Your task to perform on an android device: Show me productivity apps on the Play Store Image 0: 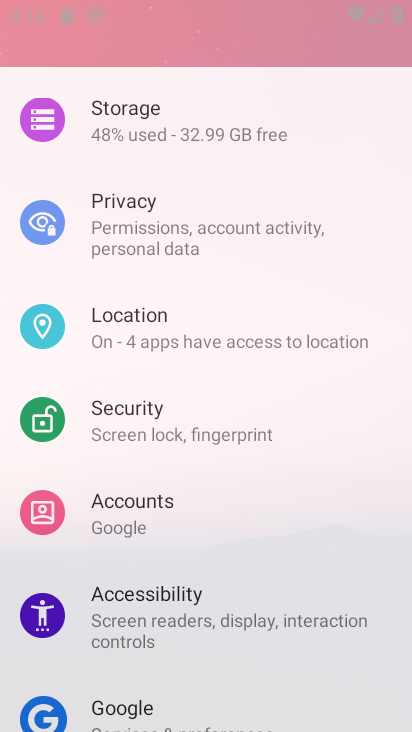
Step 0: click (62, 446)
Your task to perform on an android device: Show me productivity apps on the Play Store Image 1: 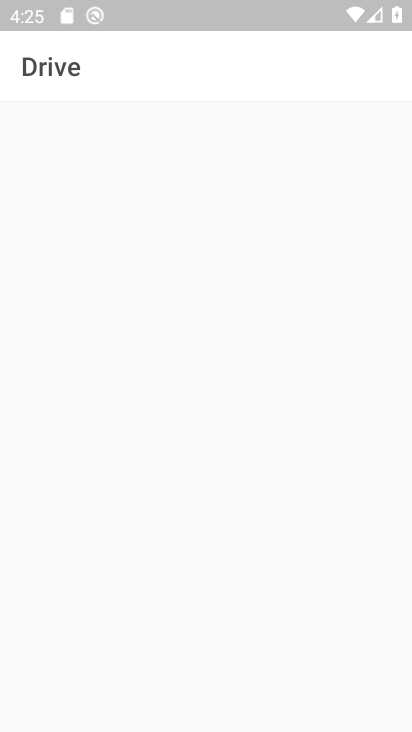
Step 1: press home button
Your task to perform on an android device: Show me productivity apps on the Play Store Image 2: 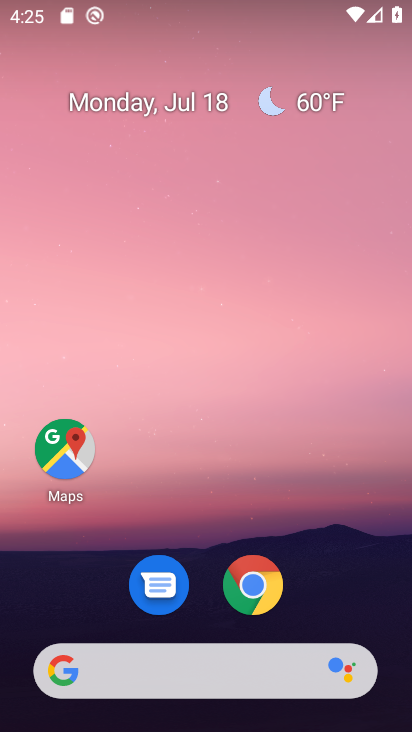
Step 2: drag from (232, 486) to (249, 47)
Your task to perform on an android device: Show me productivity apps on the Play Store Image 3: 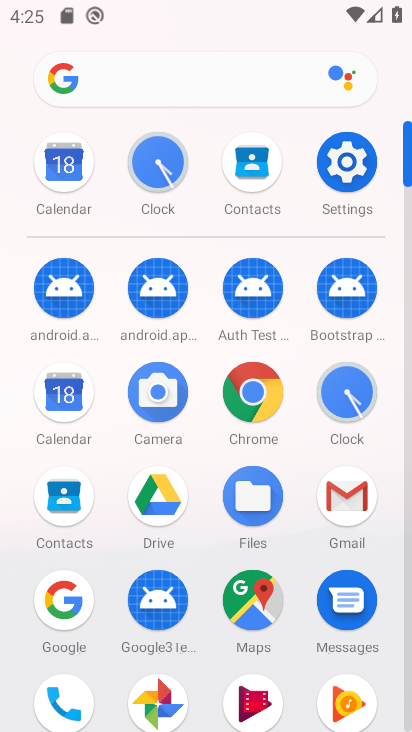
Step 3: drag from (199, 510) to (230, 27)
Your task to perform on an android device: Show me productivity apps on the Play Store Image 4: 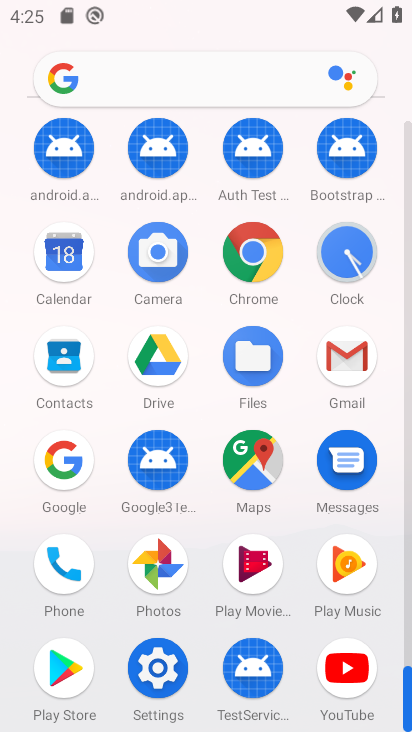
Step 4: click (81, 660)
Your task to perform on an android device: Show me productivity apps on the Play Store Image 5: 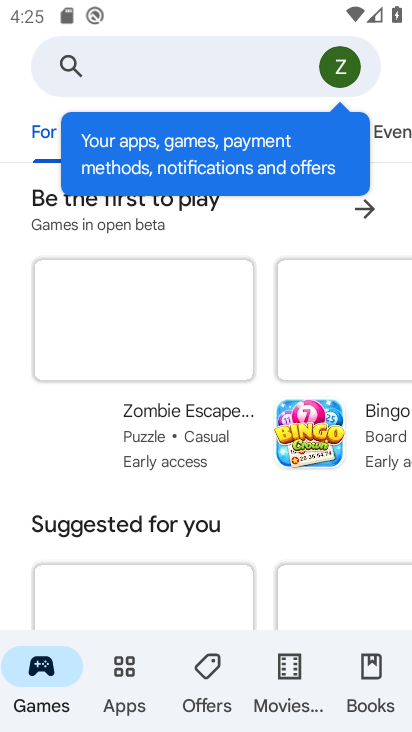
Step 5: click (123, 679)
Your task to perform on an android device: Show me productivity apps on the Play Store Image 6: 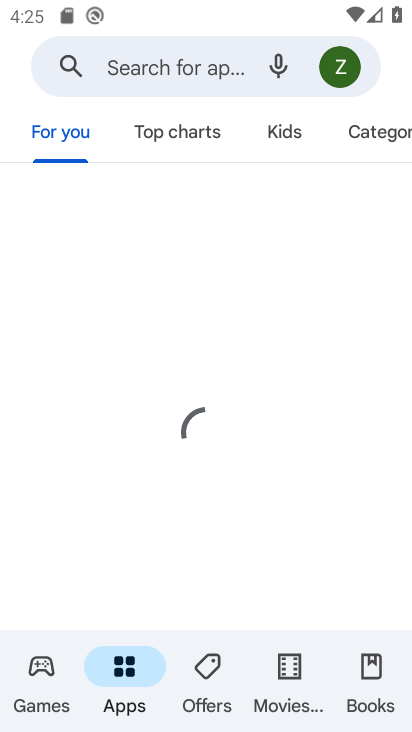
Step 6: click (386, 129)
Your task to perform on an android device: Show me productivity apps on the Play Store Image 7: 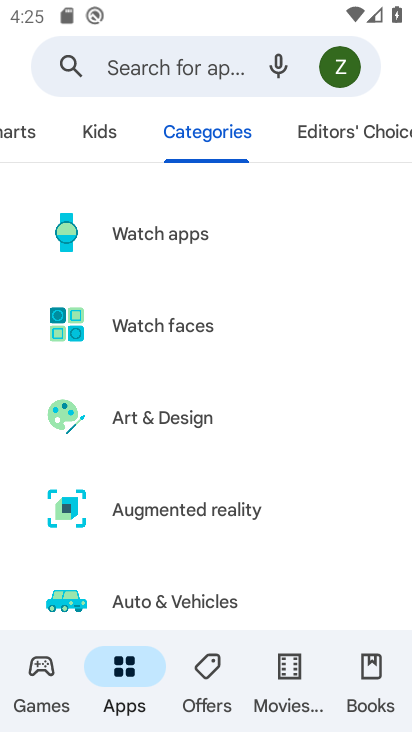
Step 7: drag from (282, 459) to (277, 95)
Your task to perform on an android device: Show me productivity apps on the Play Store Image 8: 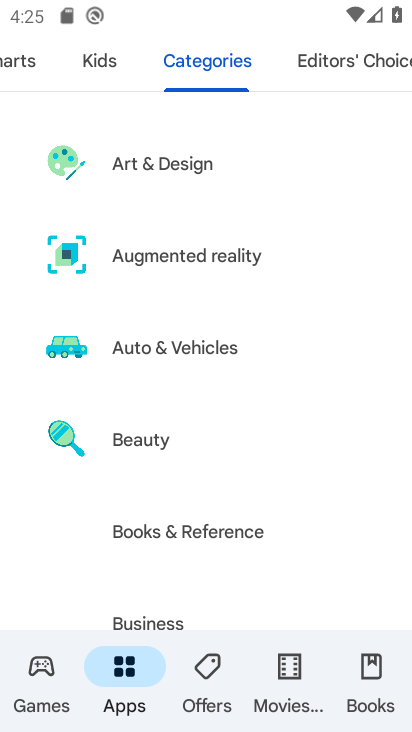
Step 8: drag from (232, 509) to (249, 88)
Your task to perform on an android device: Show me productivity apps on the Play Store Image 9: 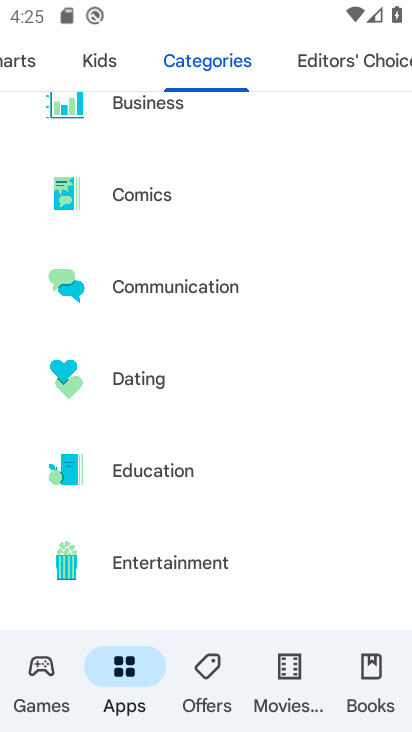
Step 9: drag from (207, 560) to (222, 132)
Your task to perform on an android device: Show me productivity apps on the Play Store Image 10: 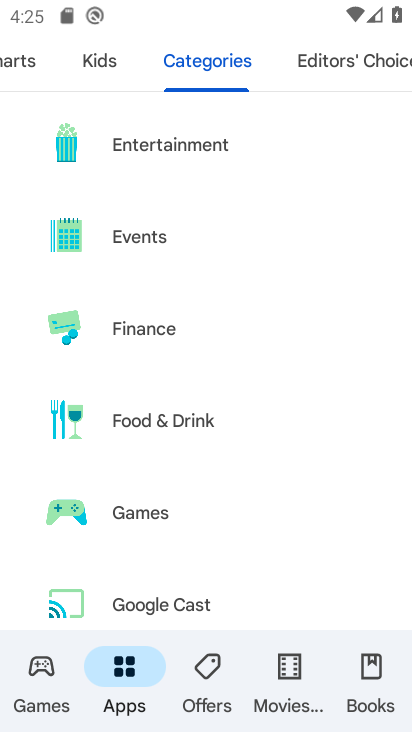
Step 10: drag from (207, 572) to (215, 163)
Your task to perform on an android device: Show me productivity apps on the Play Store Image 11: 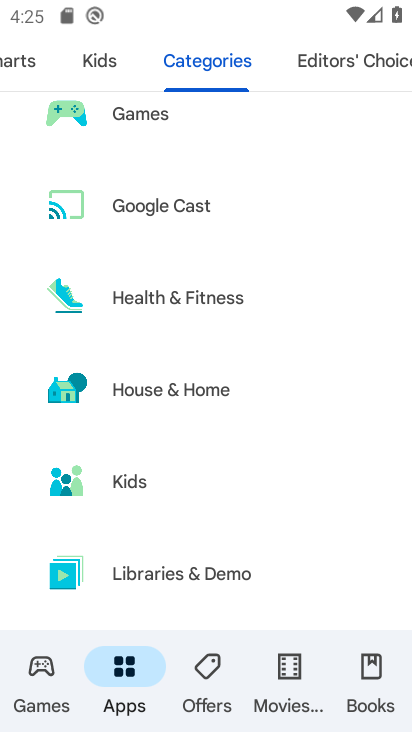
Step 11: drag from (190, 544) to (207, 158)
Your task to perform on an android device: Show me productivity apps on the Play Store Image 12: 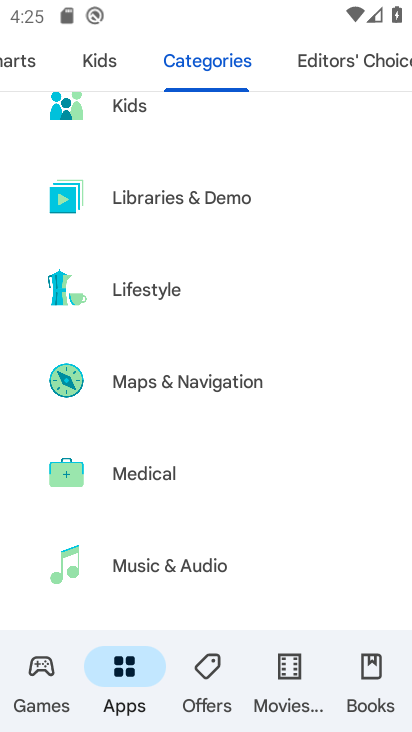
Step 12: drag from (193, 559) to (216, 239)
Your task to perform on an android device: Show me productivity apps on the Play Store Image 13: 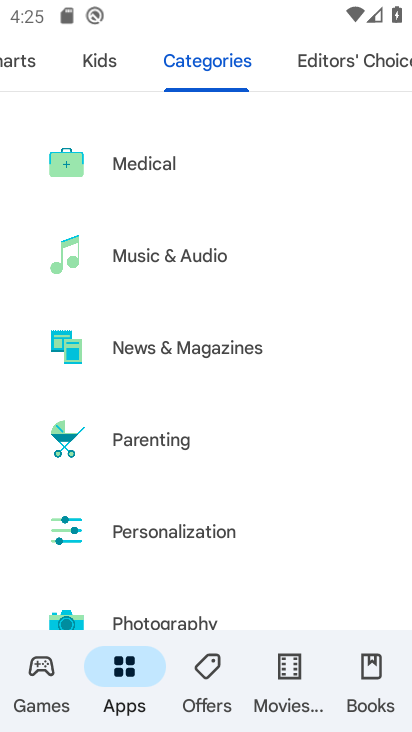
Step 13: drag from (213, 552) to (225, 266)
Your task to perform on an android device: Show me productivity apps on the Play Store Image 14: 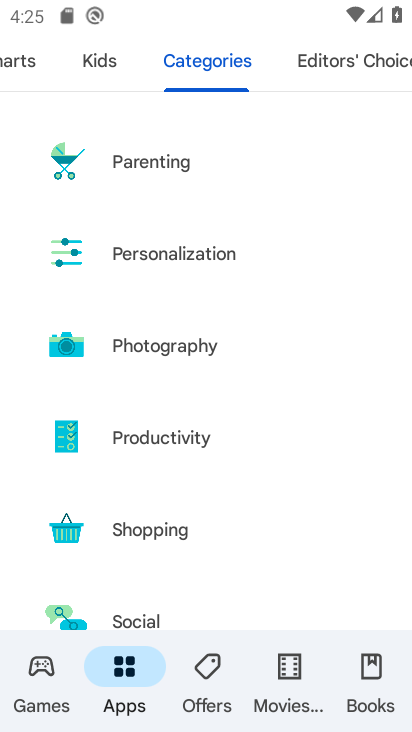
Step 14: click (218, 431)
Your task to perform on an android device: Show me productivity apps on the Play Store Image 15: 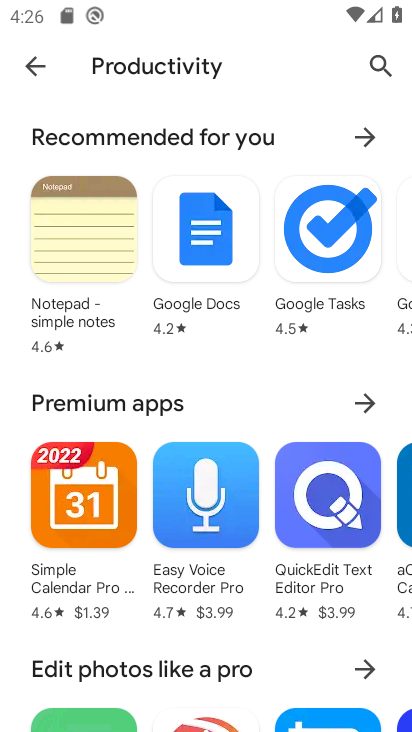
Step 15: task complete